Your task to perform on an android device: What's the time in San Francisco? Image 0: 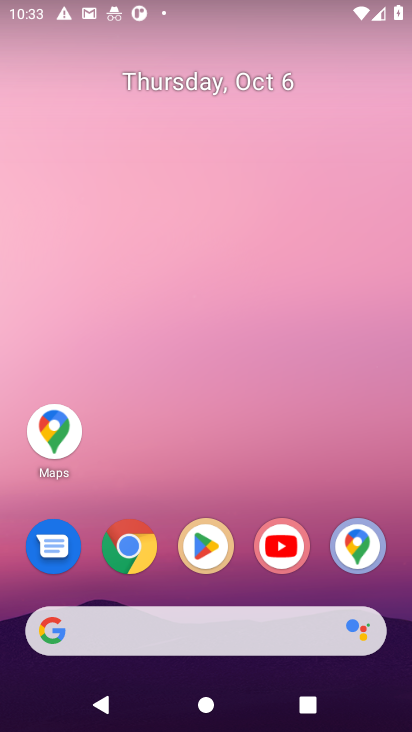
Step 0: click (129, 547)
Your task to perform on an android device: What's the time in San Francisco? Image 1: 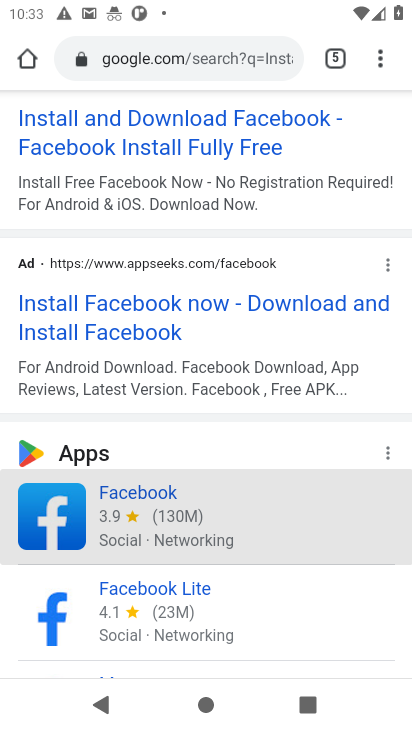
Step 1: click (187, 42)
Your task to perform on an android device: What's the time in San Francisco? Image 2: 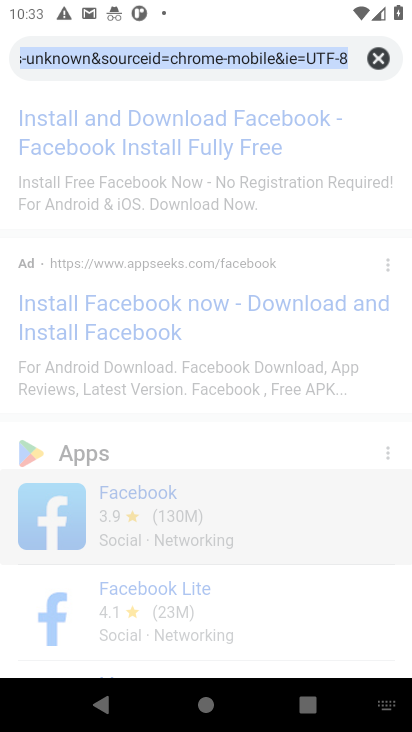
Step 2: click (381, 57)
Your task to perform on an android device: What's the time in San Francisco? Image 3: 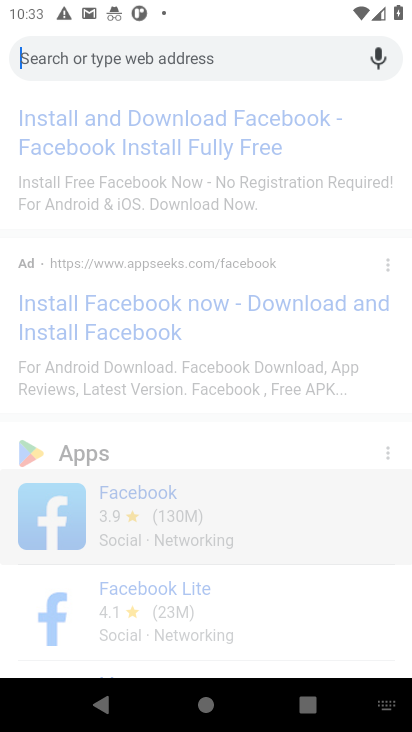
Step 3: type "What's the time in San Francisco?"
Your task to perform on an android device: What's the time in San Francisco? Image 4: 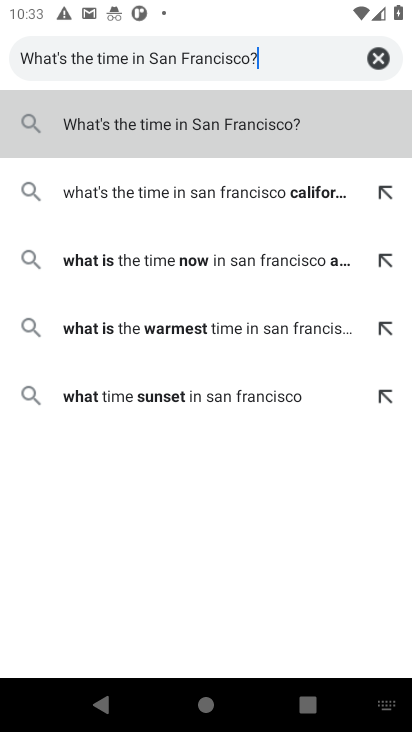
Step 4: click (137, 130)
Your task to perform on an android device: What's the time in San Francisco? Image 5: 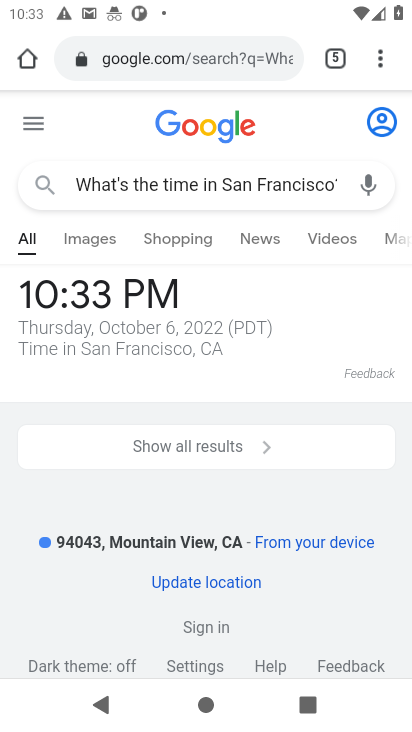
Step 5: task complete